Your task to perform on an android device: Open Google Chrome and open the bookmarks view Image 0: 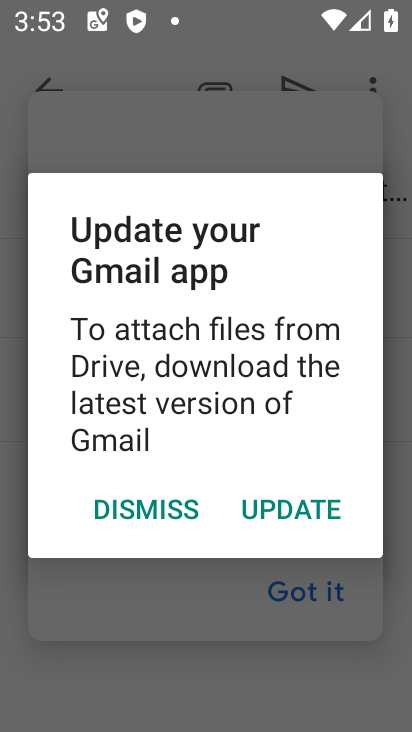
Step 0: press home button
Your task to perform on an android device: Open Google Chrome and open the bookmarks view Image 1: 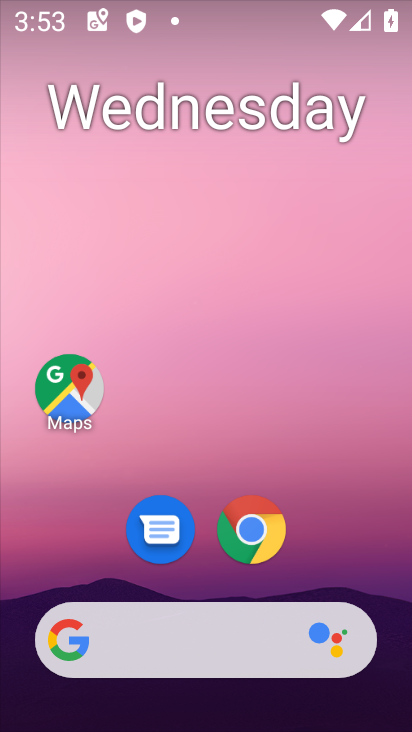
Step 1: click (258, 551)
Your task to perform on an android device: Open Google Chrome and open the bookmarks view Image 2: 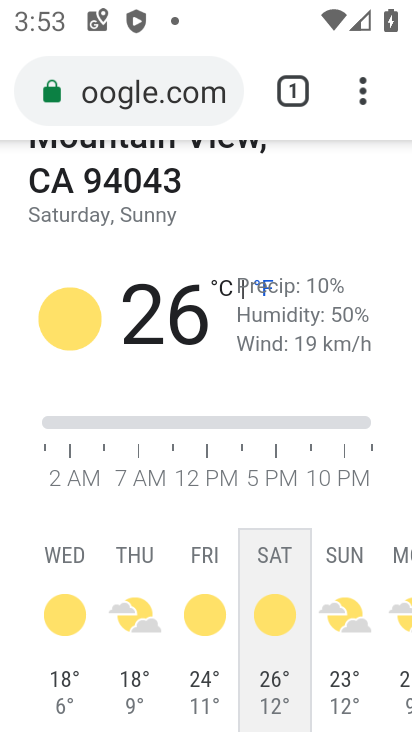
Step 2: task complete